Your task to perform on an android device: Go to Android settings Image 0: 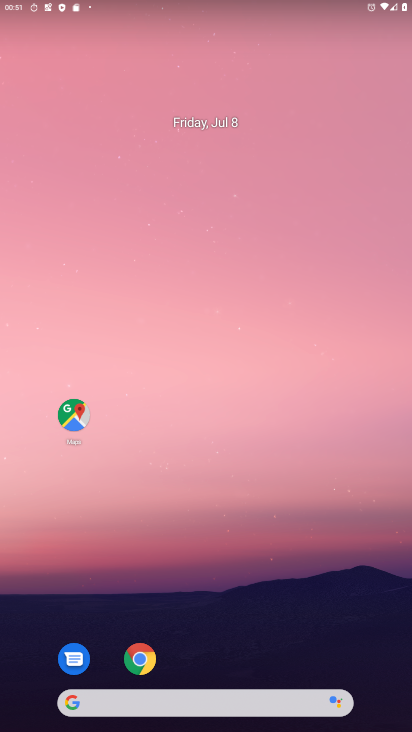
Step 0: drag from (251, 134) to (272, 539)
Your task to perform on an android device: Go to Android settings Image 1: 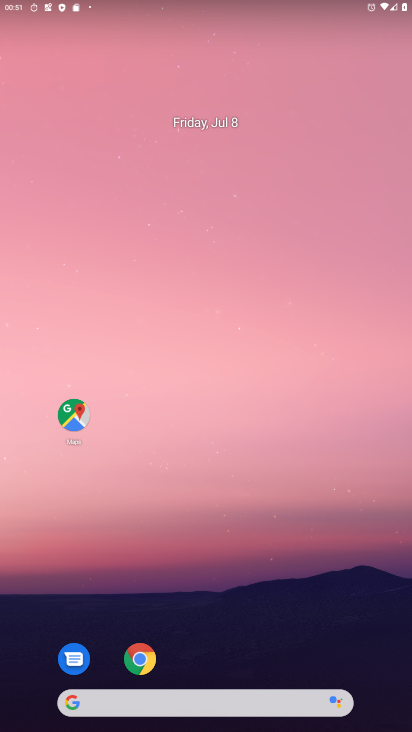
Step 1: drag from (218, 16) to (270, 649)
Your task to perform on an android device: Go to Android settings Image 2: 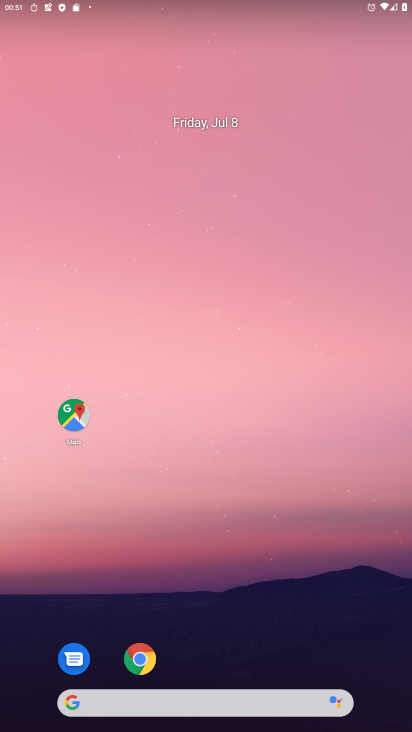
Step 2: drag from (287, 8) to (329, 459)
Your task to perform on an android device: Go to Android settings Image 3: 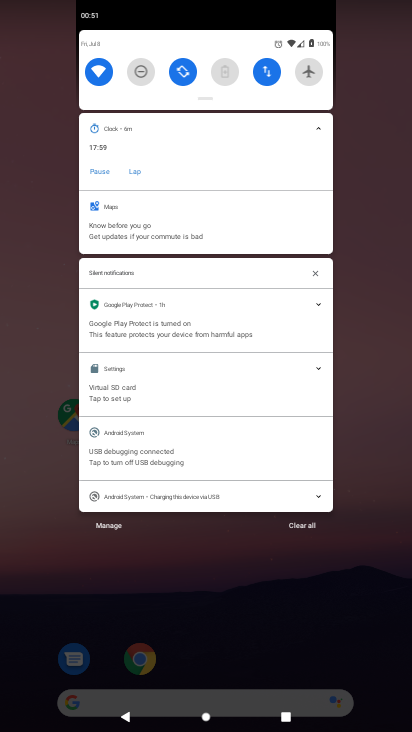
Step 3: drag from (199, 52) to (305, 622)
Your task to perform on an android device: Go to Android settings Image 4: 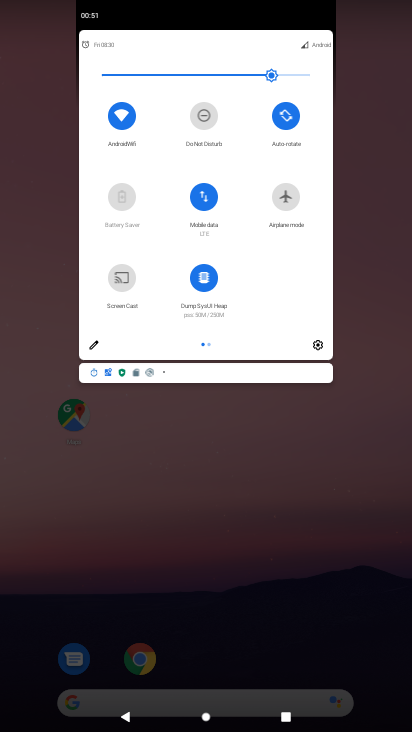
Step 4: click (318, 341)
Your task to perform on an android device: Go to Android settings Image 5: 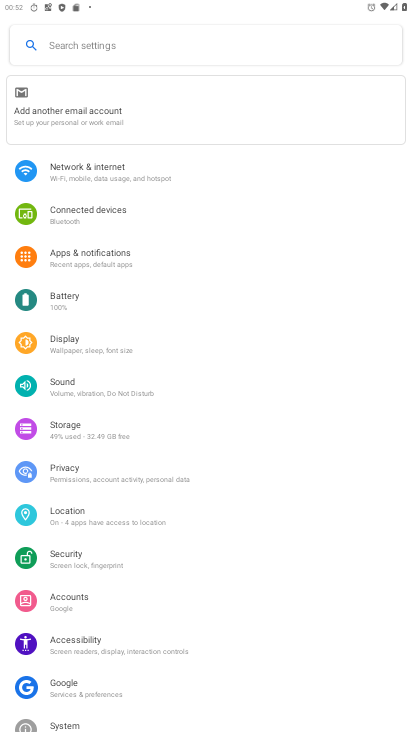
Step 5: task complete